Your task to perform on an android device: Search for "lg ultragear" on costco, select the first entry, add it to the cart, then select checkout. Image 0: 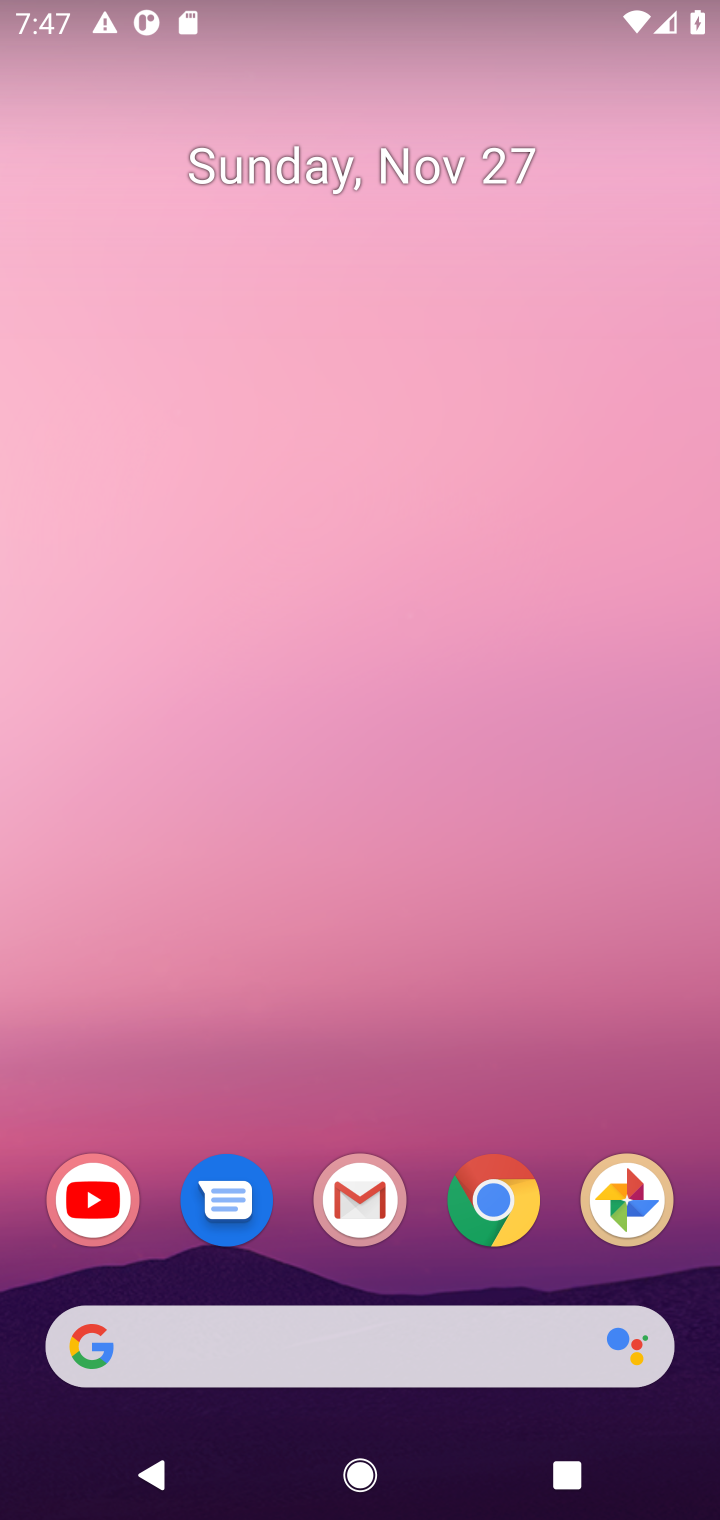
Step 0: click (489, 1201)
Your task to perform on an android device: Search for "lg ultragear" on costco, select the first entry, add it to the cart, then select checkout. Image 1: 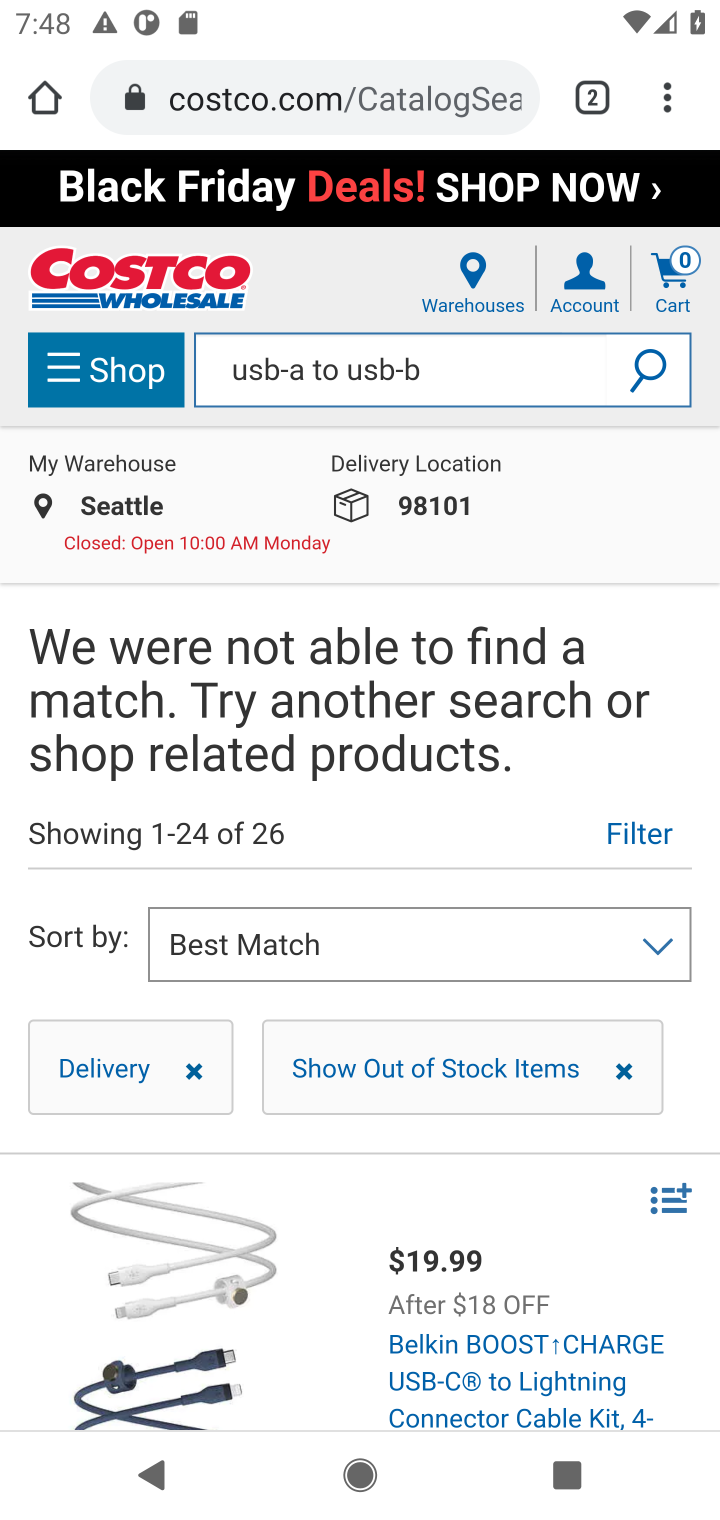
Step 1: click (470, 376)
Your task to perform on an android device: Search for "lg ultragear" on costco, select the first entry, add it to the cart, then select checkout. Image 2: 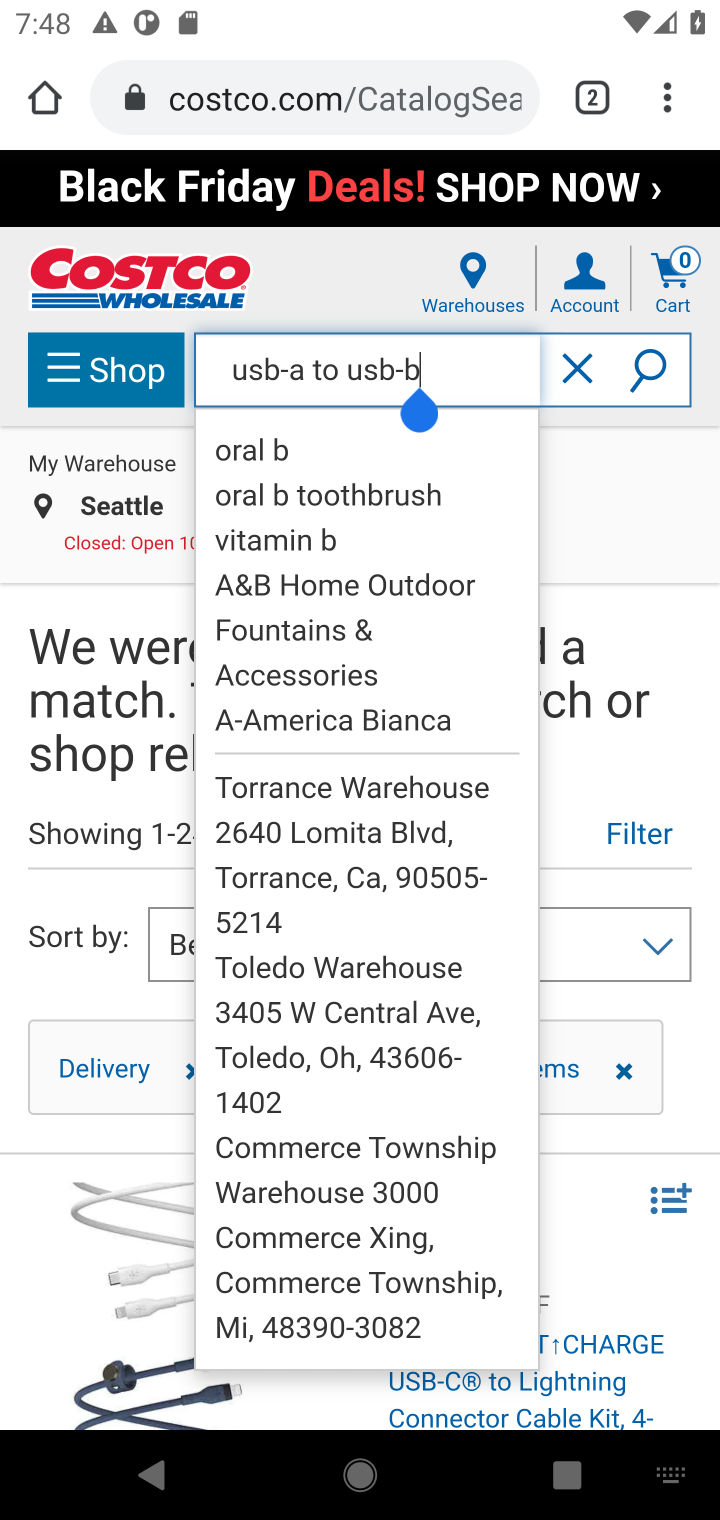
Step 2: click (567, 355)
Your task to perform on an android device: Search for "lg ultragear" on costco, select the first entry, add it to the cart, then select checkout. Image 3: 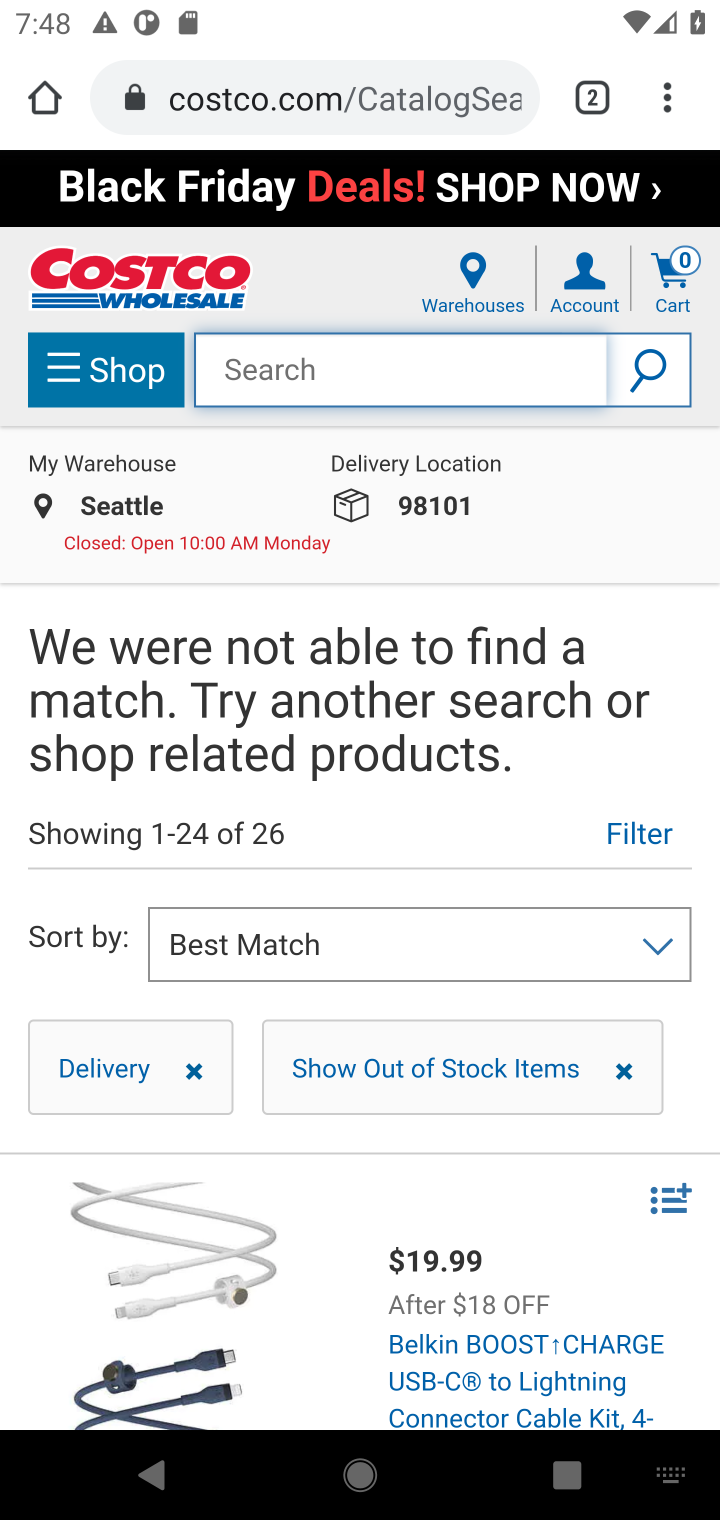
Step 3: type "lg ultragear"
Your task to perform on an android device: Search for "lg ultragear" on costco, select the first entry, add it to the cart, then select checkout. Image 4: 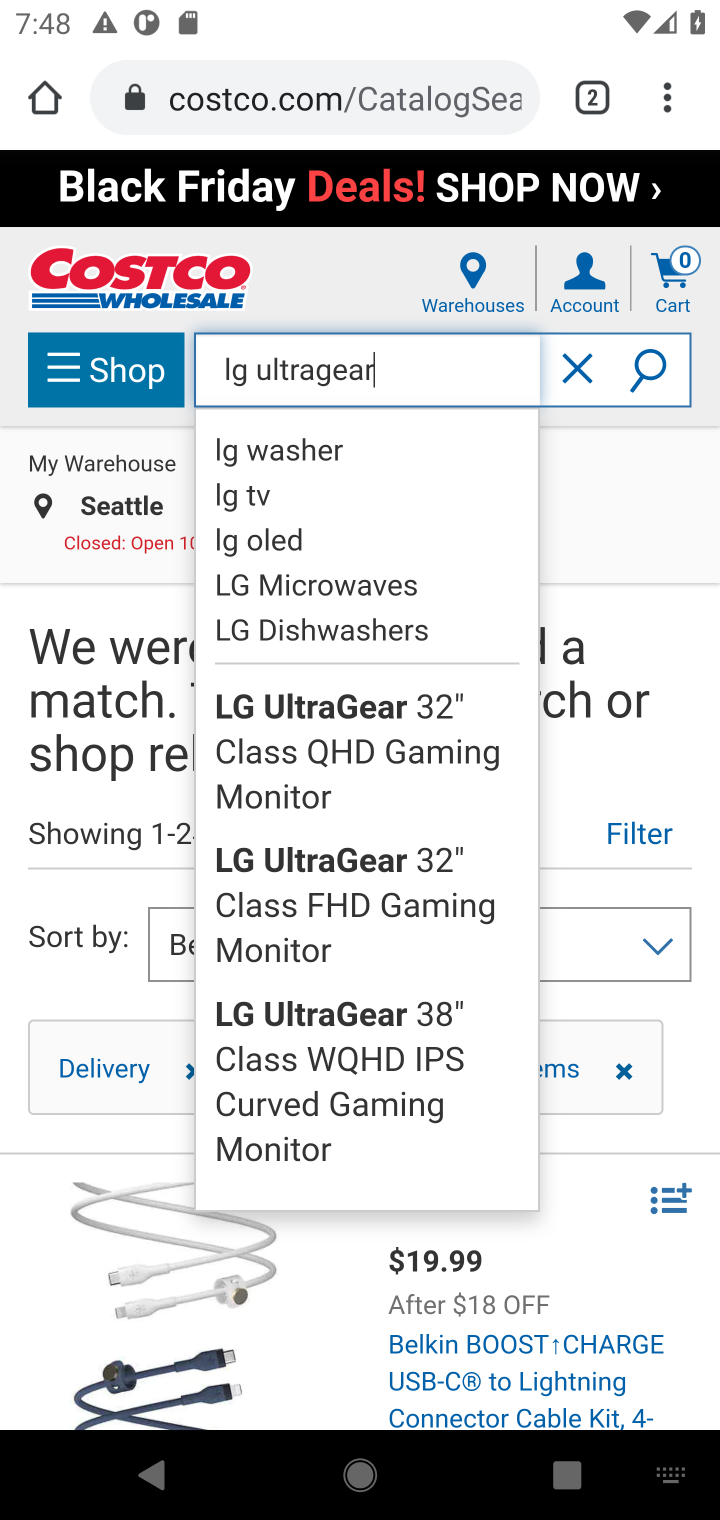
Step 4: click (629, 373)
Your task to perform on an android device: Search for "lg ultragear" on costco, select the first entry, add it to the cart, then select checkout. Image 5: 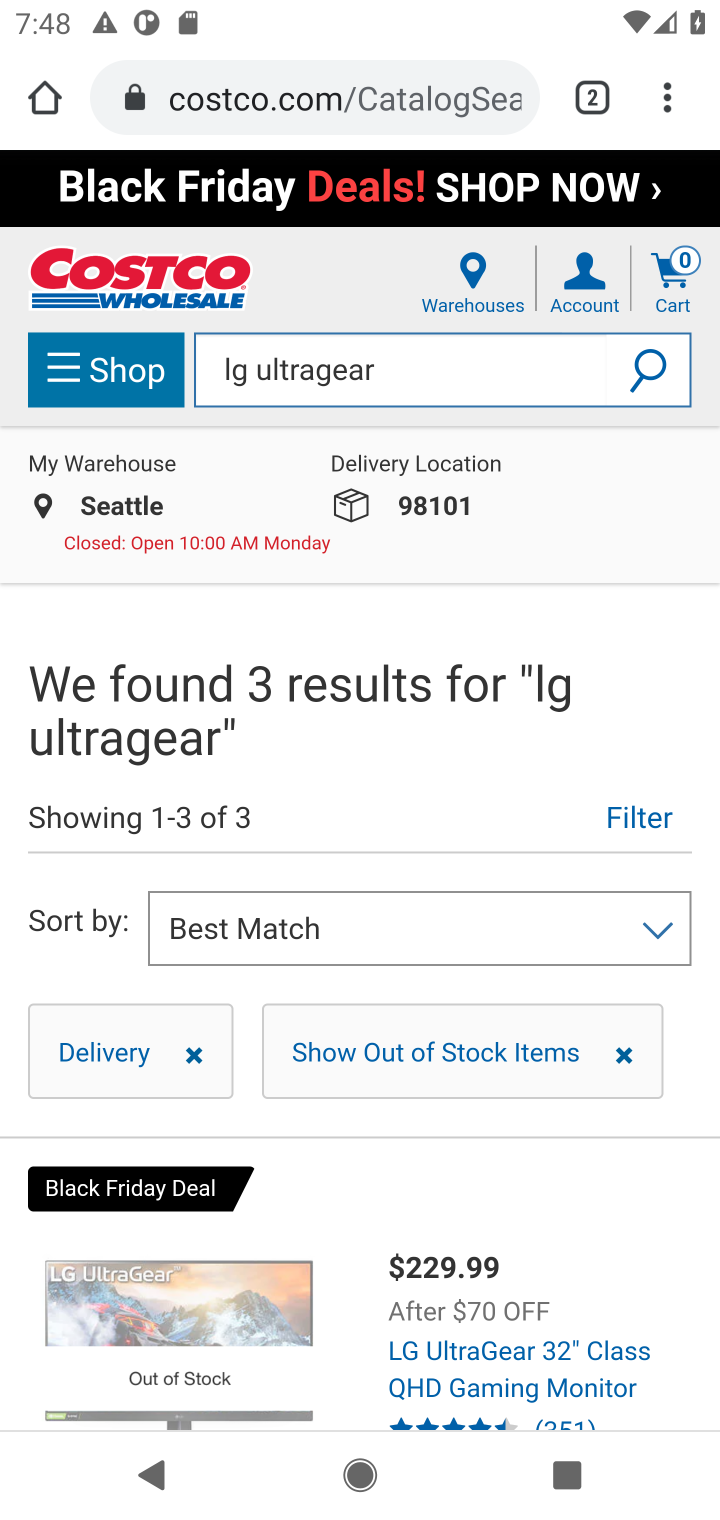
Step 5: task complete